Your task to perform on an android device: change the upload size in google photos Image 0: 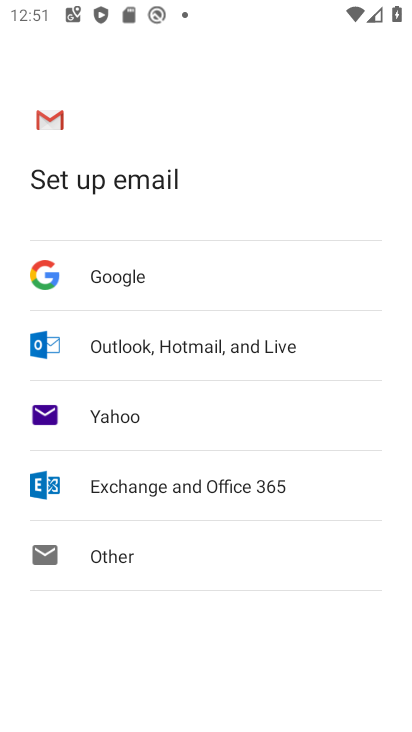
Step 0: press home button
Your task to perform on an android device: change the upload size in google photos Image 1: 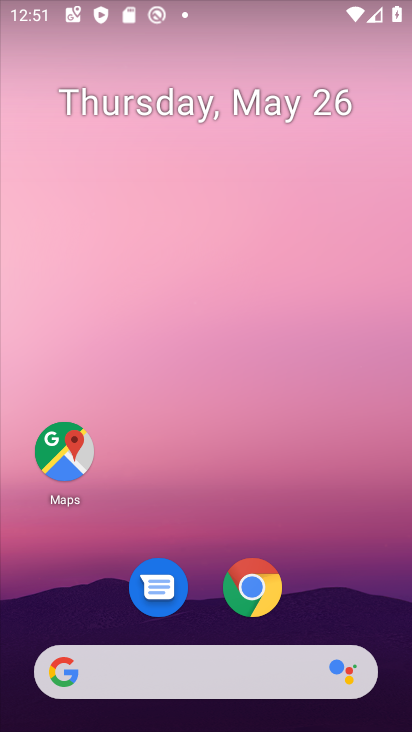
Step 1: drag from (367, 612) to (362, 267)
Your task to perform on an android device: change the upload size in google photos Image 2: 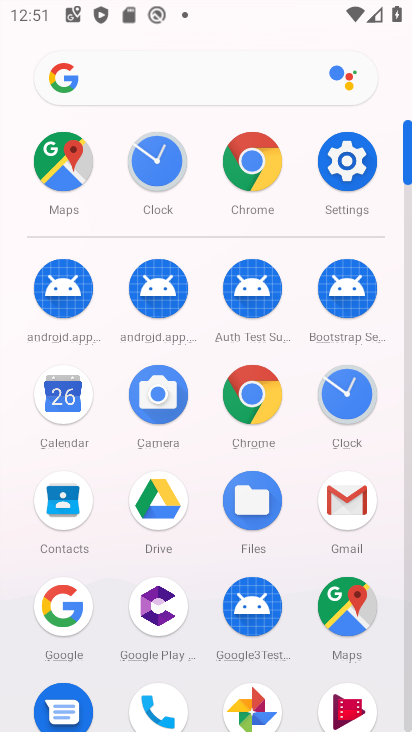
Step 2: drag from (293, 648) to (295, 367)
Your task to perform on an android device: change the upload size in google photos Image 3: 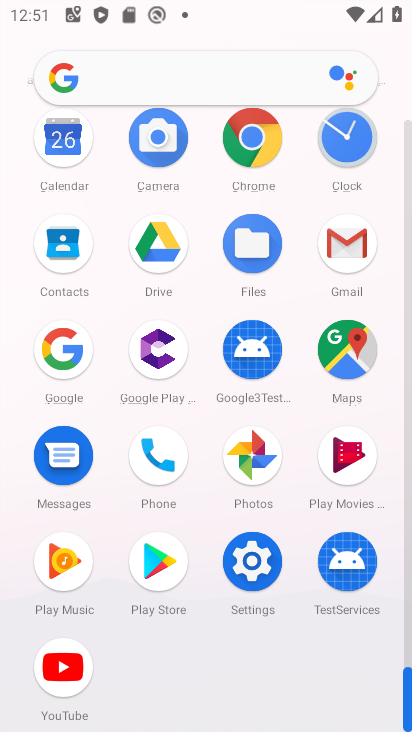
Step 3: click (257, 453)
Your task to perform on an android device: change the upload size in google photos Image 4: 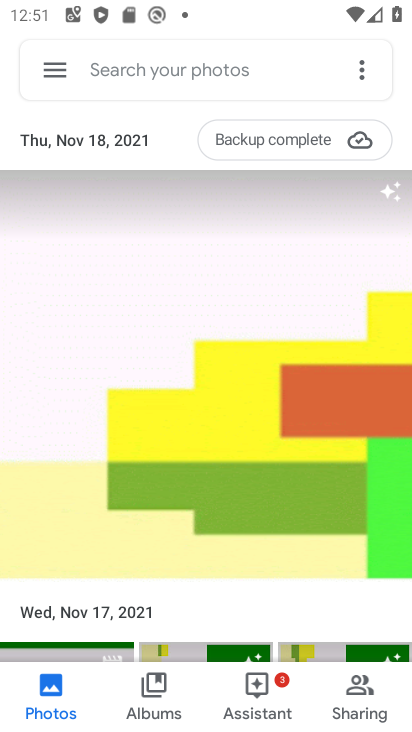
Step 4: click (60, 73)
Your task to perform on an android device: change the upload size in google photos Image 5: 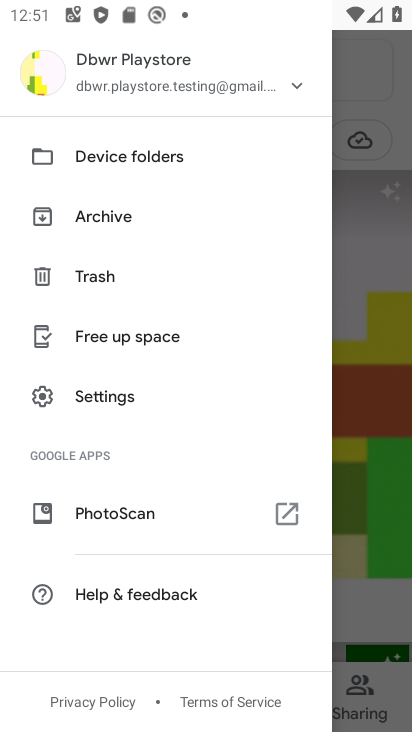
Step 5: click (143, 401)
Your task to perform on an android device: change the upload size in google photos Image 6: 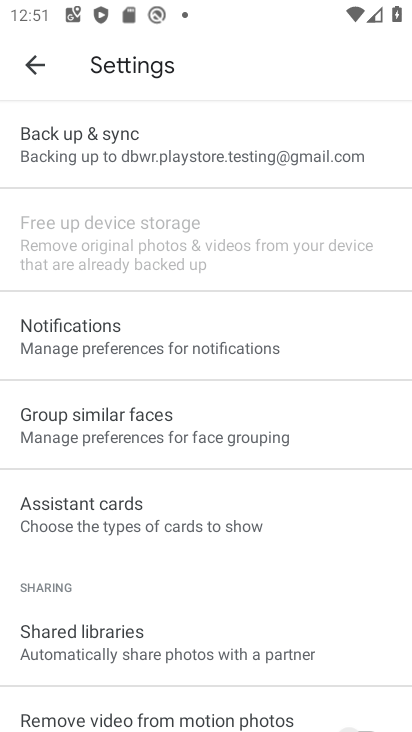
Step 6: click (163, 150)
Your task to perform on an android device: change the upload size in google photos Image 7: 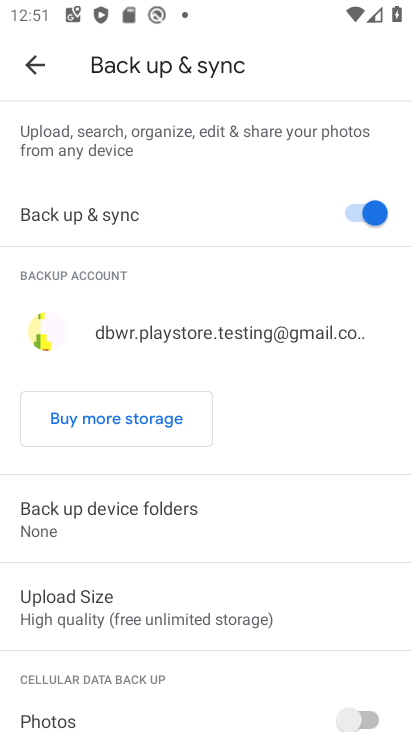
Step 7: drag from (245, 530) to (252, 390)
Your task to perform on an android device: change the upload size in google photos Image 8: 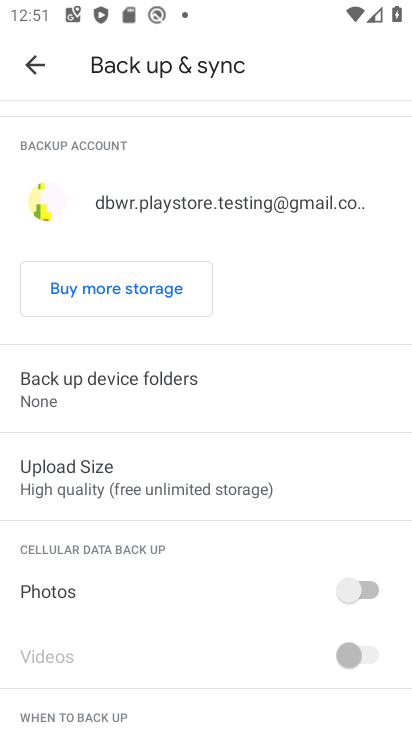
Step 8: drag from (251, 590) to (248, 466)
Your task to perform on an android device: change the upload size in google photos Image 9: 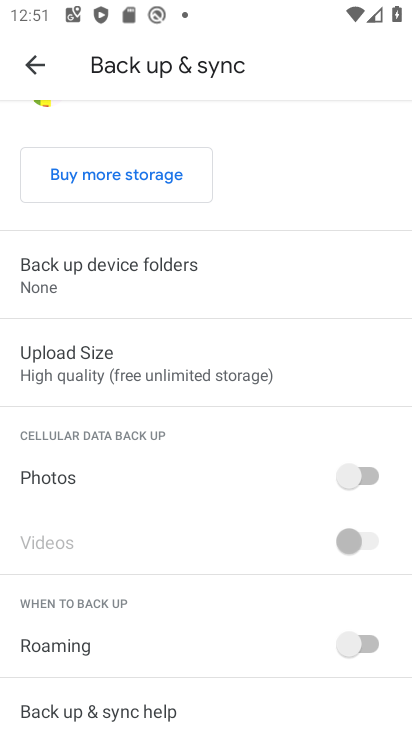
Step 9: click (225, 379)
Your task to perform on an android device: change the upload size in google photos Image 10: 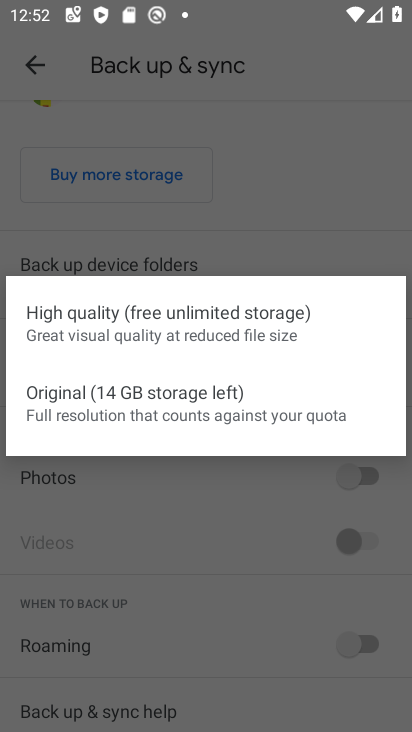
Step 10: click (175, 399)
Your task to perform on an android device: change the upload size in google photos Image 11: 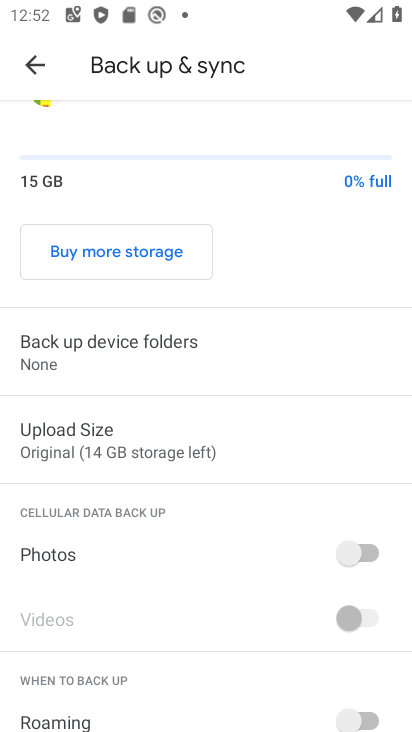
Step 11: task complete